Your task to perform on an android device: Find coffee shops on Maps Image 0: 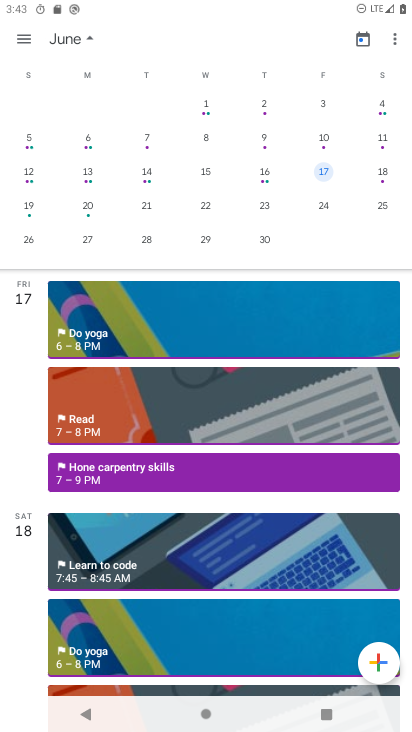
Step 0: press home button
Your task to perform on an android device: Find coffee shops on Maps Image 1: 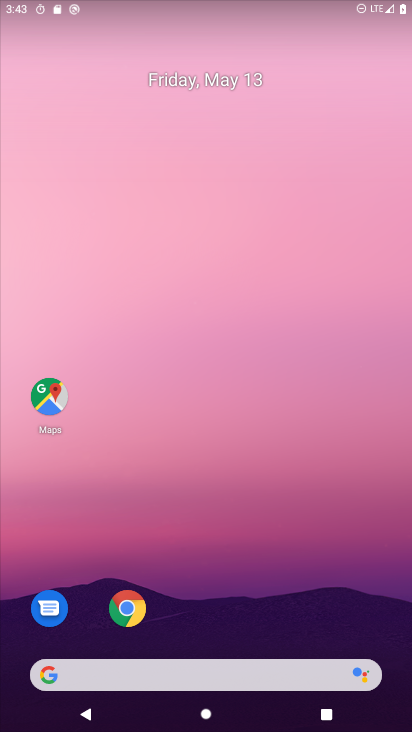
Step 1: click (52, 387)
Your task to perform on an android device: Find coffee shops on Maps Image 2: 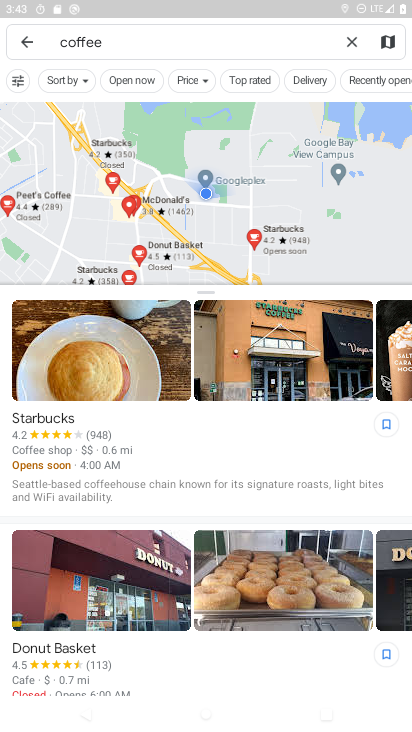
Step 2: task complete